Your task to perform on an android device: Go to accessibility settings Image 0: 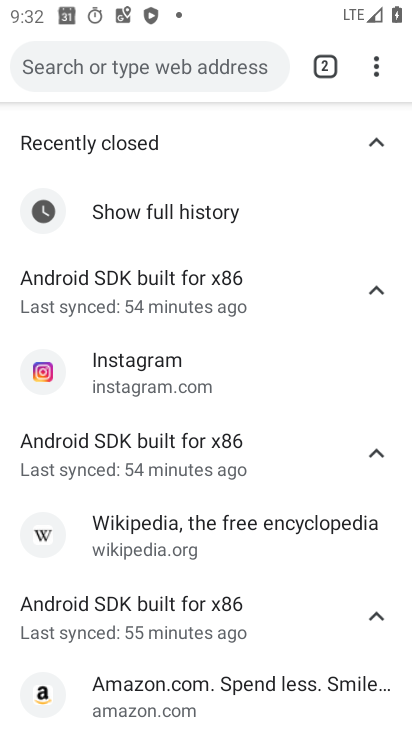
Step 0: press home button
Your task to perform on an android device: Go to accessibility settings Image 1: 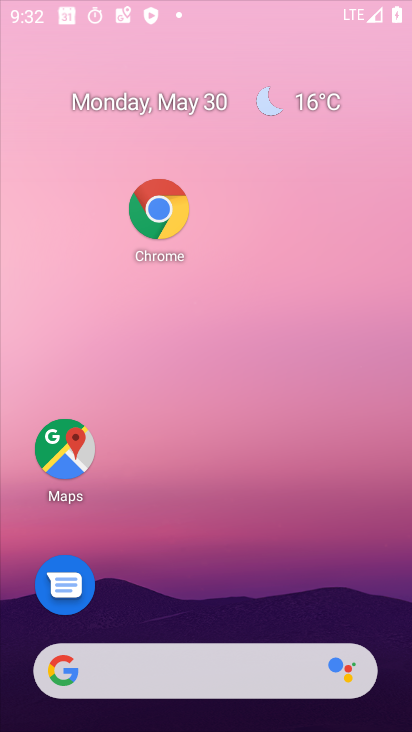
Step 1: drag from (163, 654) to (411, 39)
Your task to perform on an android device: Go to accessibility settings Image 2: 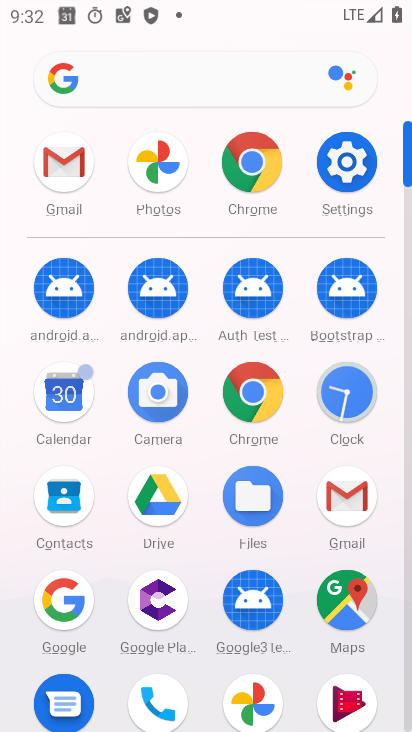
Step 2: click (349, 163)
Your task to perform on an android device: Go to accessibility settings Image 3: 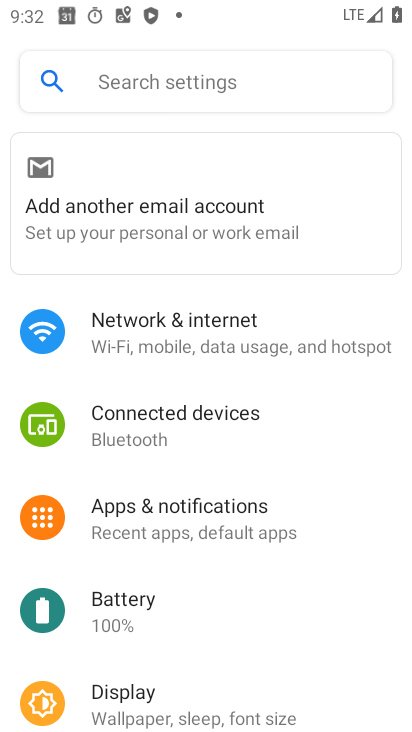
Step 3: drag from (206, 623) to (409, 80)
Your task to perform on an android device: Go to accessibility settings Image 4: 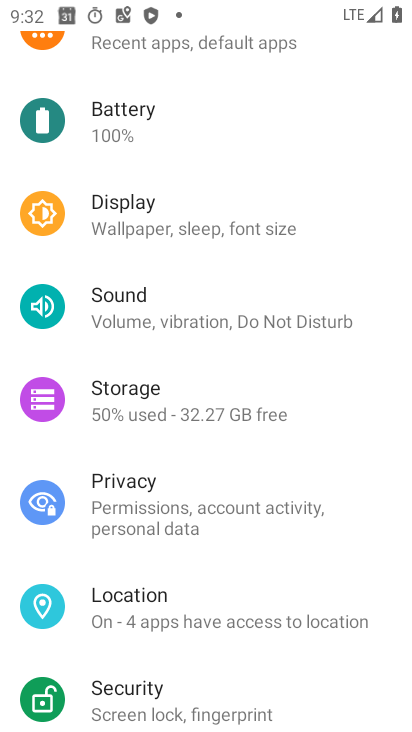
Step 4: drag from (194, 608) to (317, 216)
Your task to perform on an android device: Go to accessibility settings Image 5: 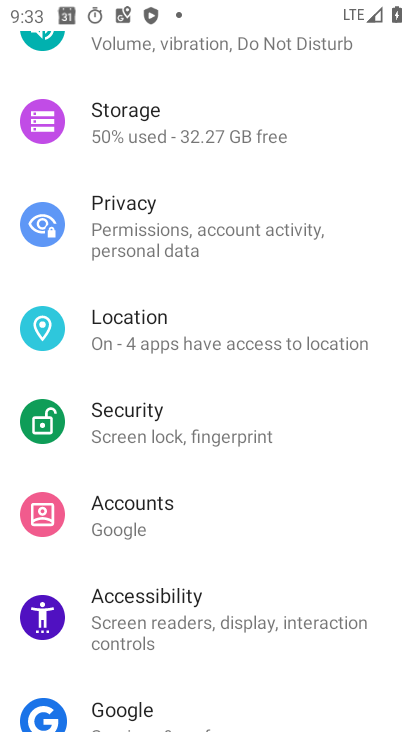
Step 5: click (159, 592)
Your task to perform on an android device: Go to accessibility settings Image 6: 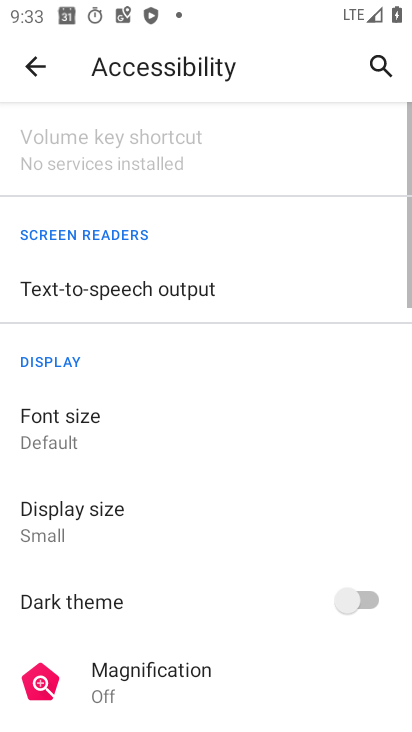
Step 6: task complete